Your task to perform on an android device: Open Amazon Image 0: 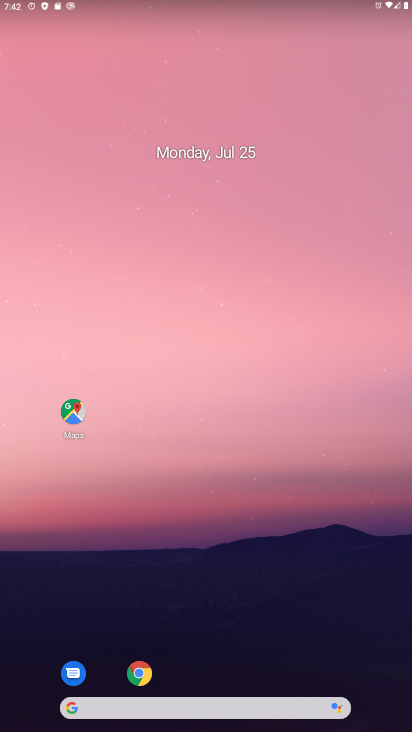
Step 0: drag from (335, 683) to (144, 97)
Your task to perform on an android device: Open Amazon Image 1: 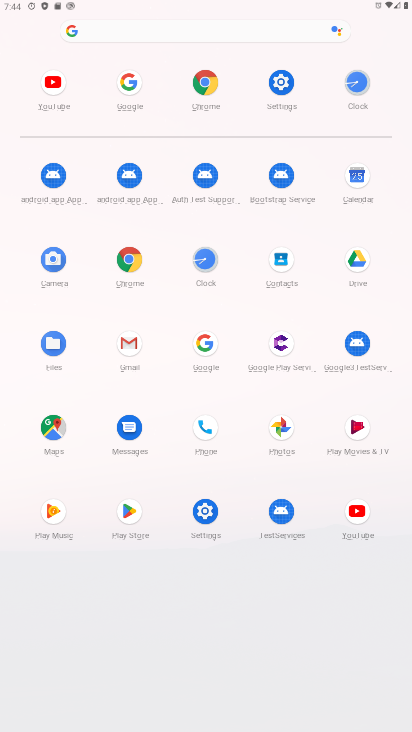
Step 1: click (199, 338)
Your task to perform on an android device: Open Amazon Image 2: 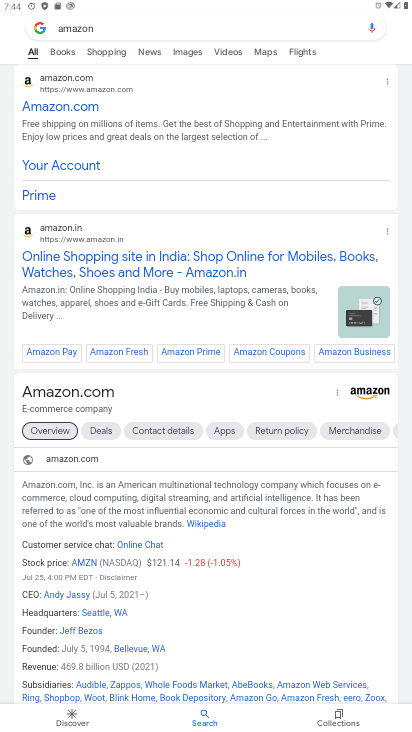
Step 2: task complete